Your task to perform on an android device: empty trash in the gmail app Image 0: 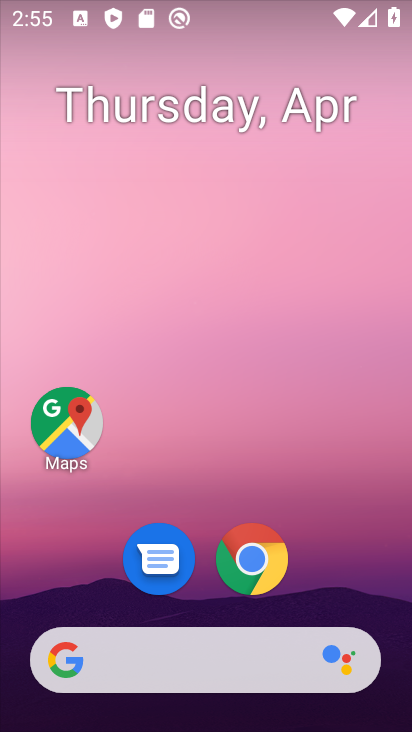
Step 0: drag from (273, 461) to (265, 91)
Your task to perform on an android device: empty trash in the gmail app Image 1: 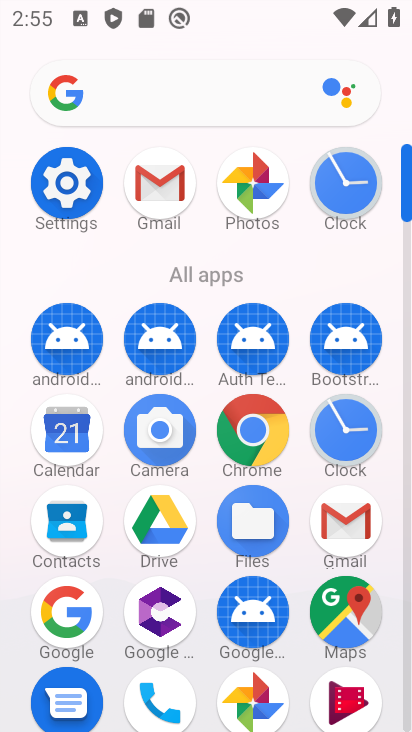
Step 1: click (354, 509)
Your task to perform on an android device: empty trash in the gmail app Image 2: 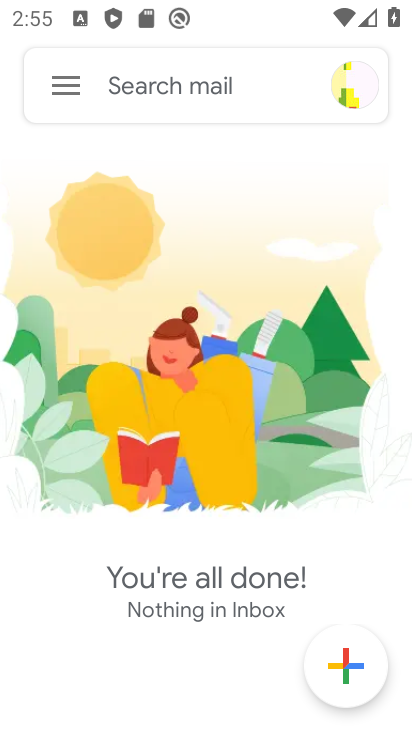
Step 2: click (77, 80)
Your task to perform on an android device: empty trash in the gmail app Image 3: 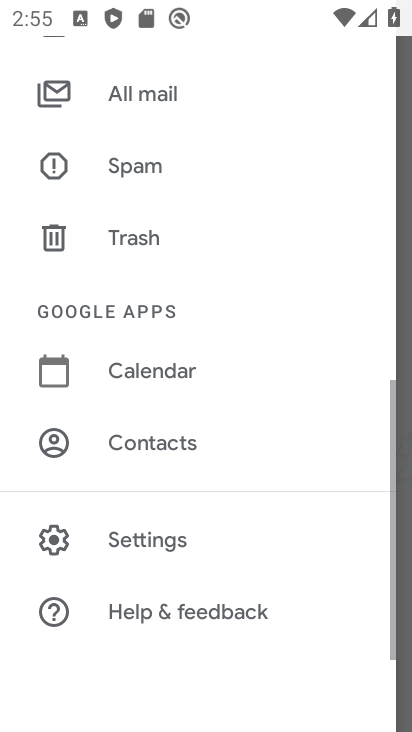
Step 3: click (169, 227)
Your task to perform on an android device: empty trash in the gmail app Image 4: 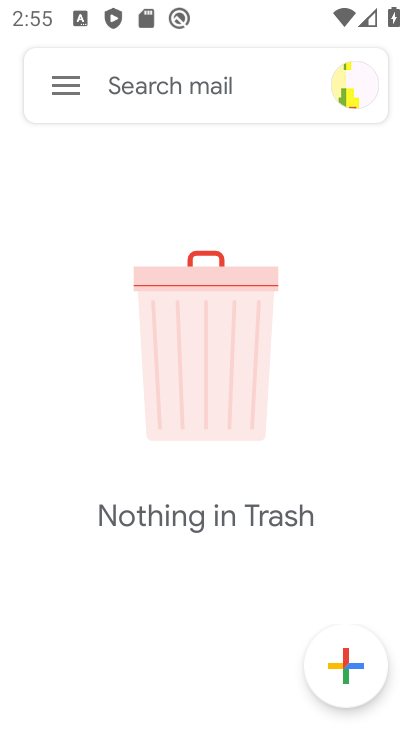
Step 4: task complete